Your task to perform on an android device: toggle airplane mode Image 0: 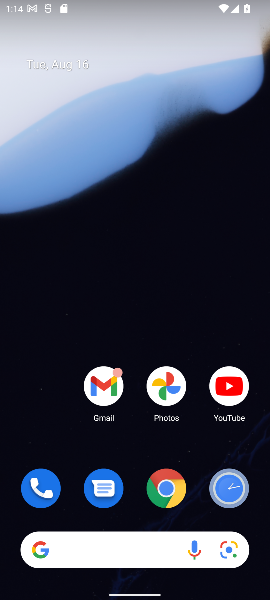
Step 0: drag from (160, 269) to (172, 18)
Your task to perform on an android device: toggle airplane mode Image 1: 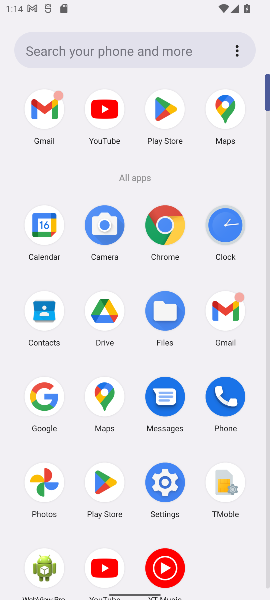
Step 1: click (159, 484)
Your task to perform on an android device: toggle airplane mode Image 2: 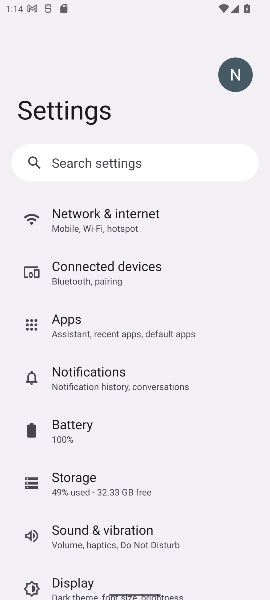
Step 2: task complete